Your task to perform on an android device: clear all cookies in the chrome app Image 0: 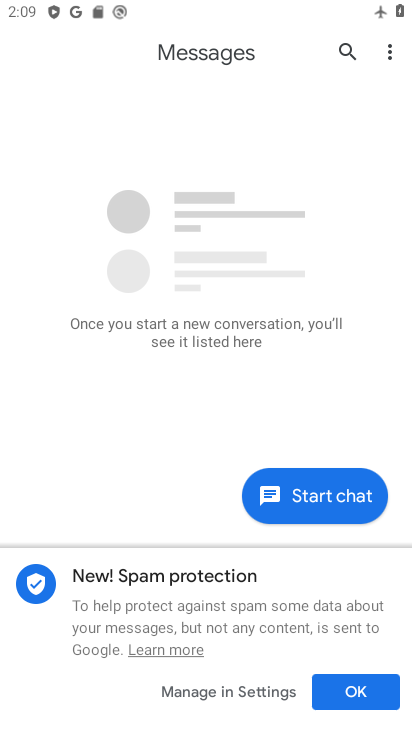
Step 0: press home button
Your task to perform on an android device: clear all cookies in the chrome app Image 1: 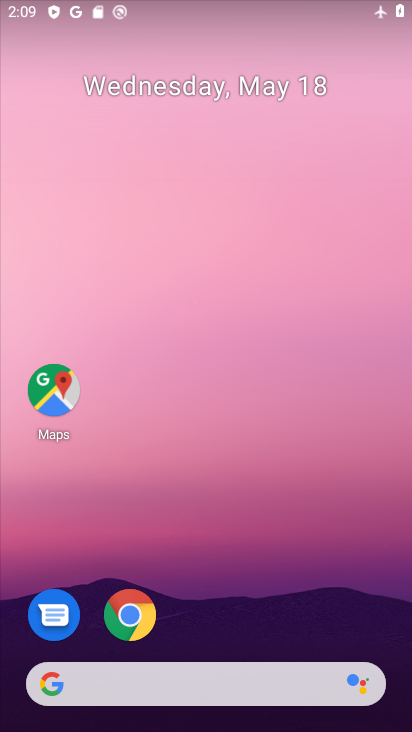
Step 1: click (137, 615)
Your task to perform on an android device: clear all cookies in the chrome app Image 2: 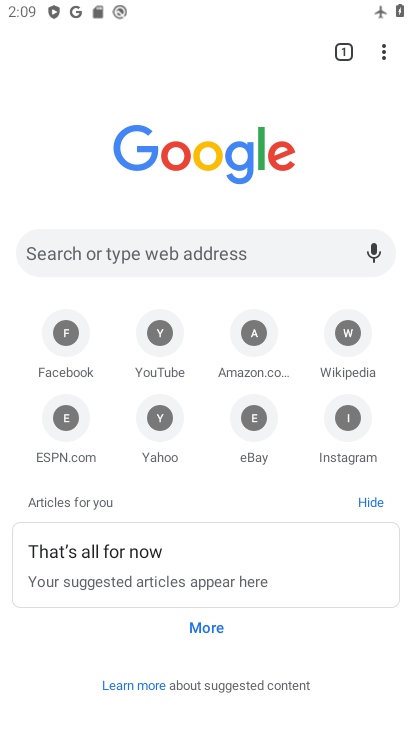
Step 2: click (387, 51)
Your task to perform on an android device: clear all cookies in the chrome app Image 3: 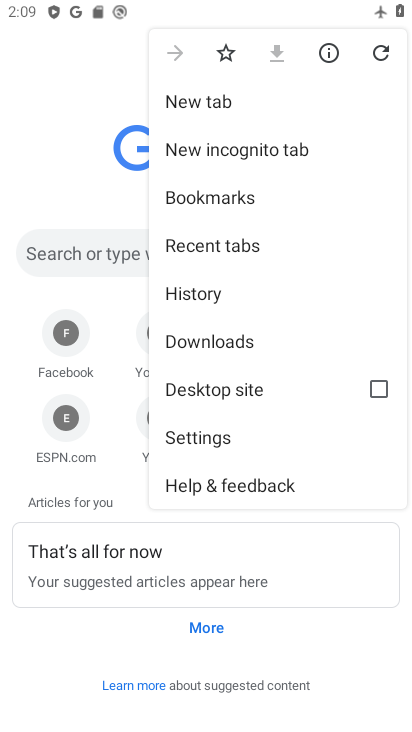
Step 3: click (198, 438)
Your task to perform on an android device: clear all cookies in the chrome app Image 4: 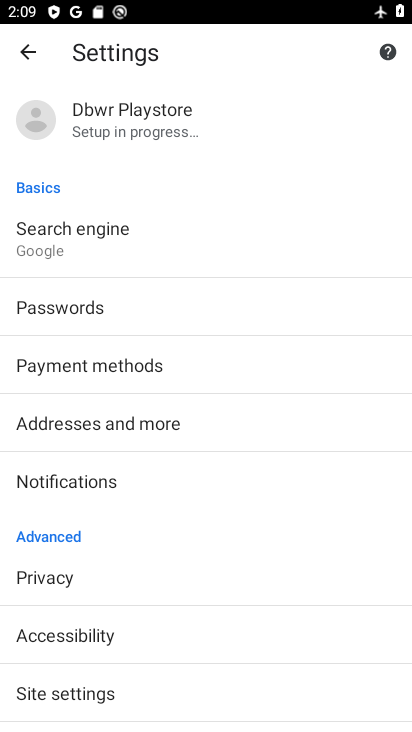
Step 4: click (38, 52)
Your task to perform on an android device: clear all cookies in the chrome app Image 5: 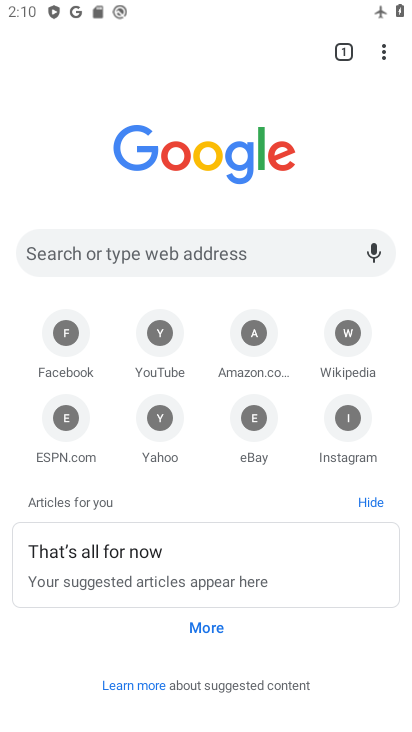
Step 5: click (387, 52)
Your task to perform on an android device: clear all cookies in the chrome app Image 6: 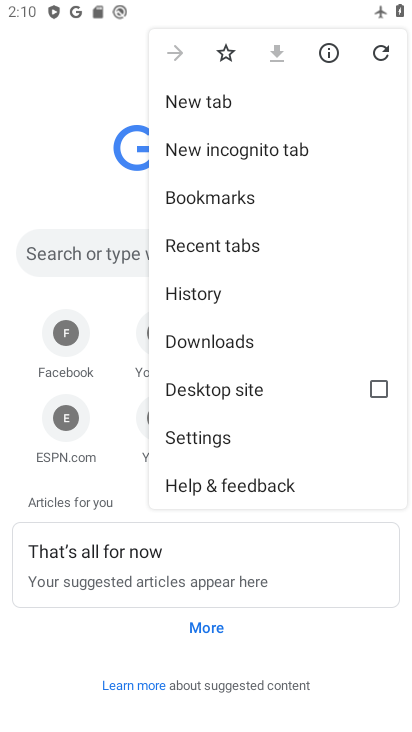
Step 6: click (200, 290)
Your task to perform on an android device: clear all cookies in the chrome app Image 7: 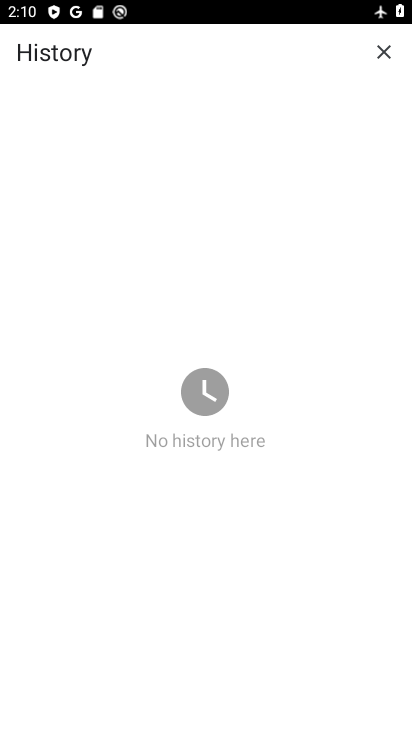
Step 7: task complete